Your task to perform on an android device: Go to CNN.com Image 0: 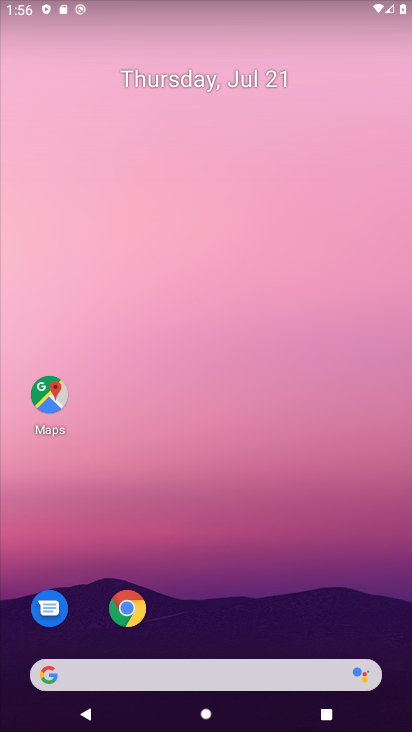
Step 0: click (118, 616)
Your task to perform on an android device: Go to CNN.com Image 1: 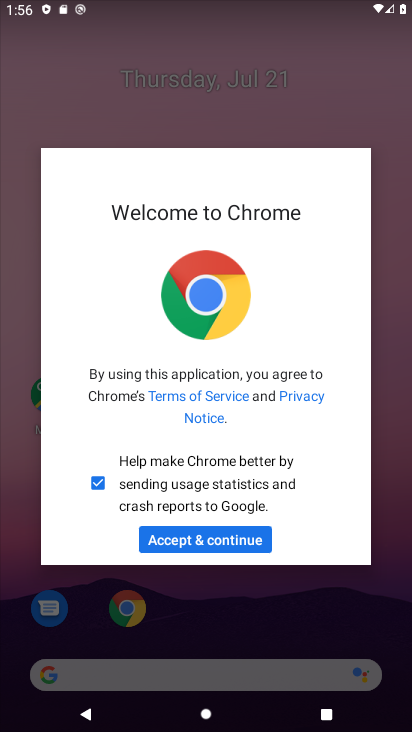
Step 1: click (219, 537)
Your task to perform on an android device: Go to CNN.com Image 2: 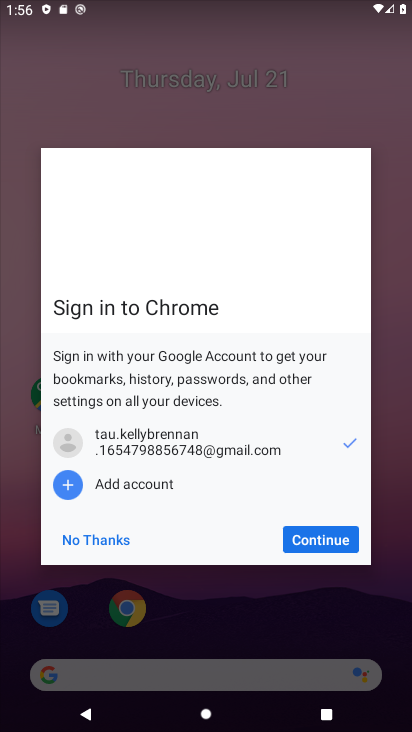
Step 2: click (314, 543)
Your task to perform on an android device: Go to CNN.com Image 3: 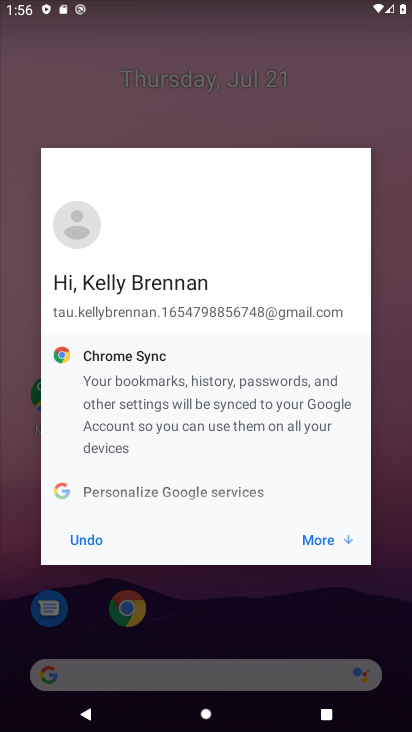
Step 3: click (305, 534)
Your task to perform on an android device: Go to CNN.com Image 4: 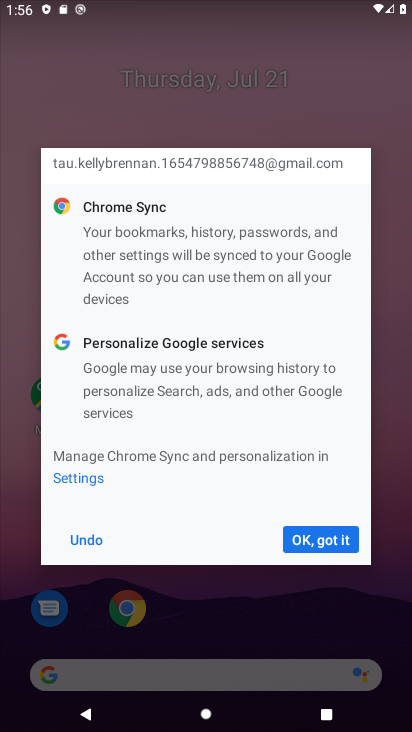
Step 4: click (305, 534)
Your task to perform on an android device: Go to CNN.com Image 5: 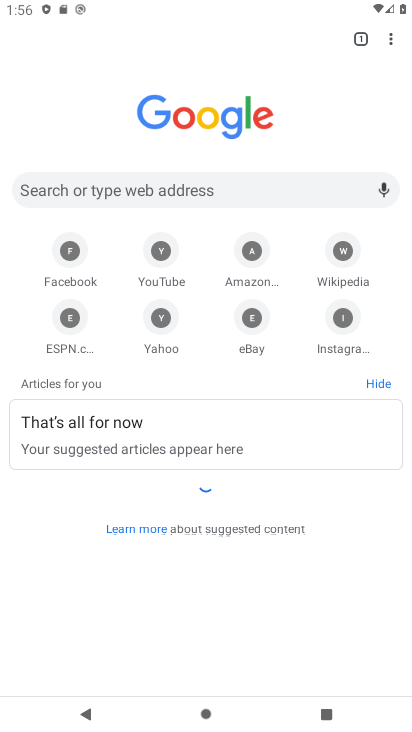
Step 5: click (226, 199)
Your task to perform on an android device: Go to CNN.com Image 6: 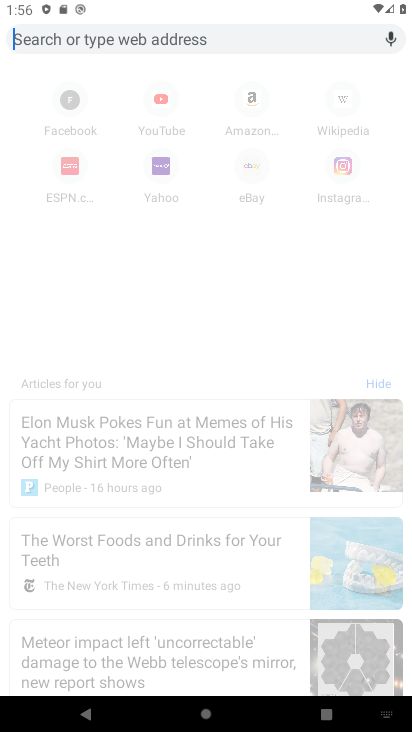
Step 6: type "CNN.com"
Your task to perform on an android device: Go to CNN.com Image 7: 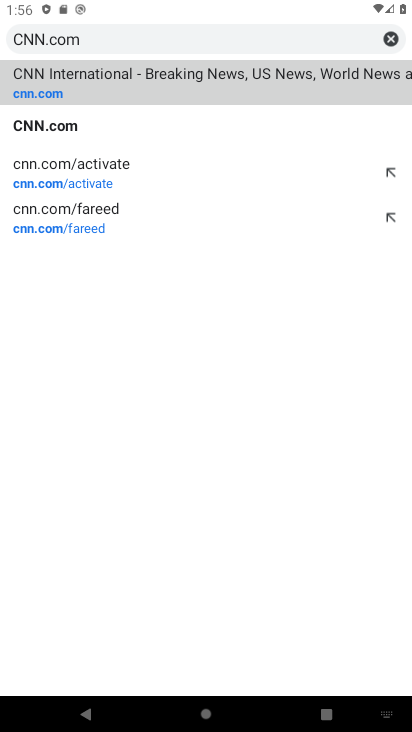
Step 7: click (100, 93)
Your task to perform on an android device: Go to CNN.com Image 8: 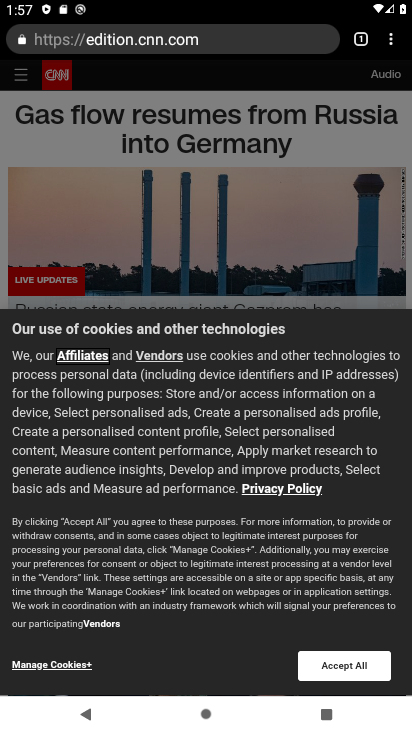
Step 8: task complete